Your task to perform on an android device: Do I have any events this weekend? Image 0: 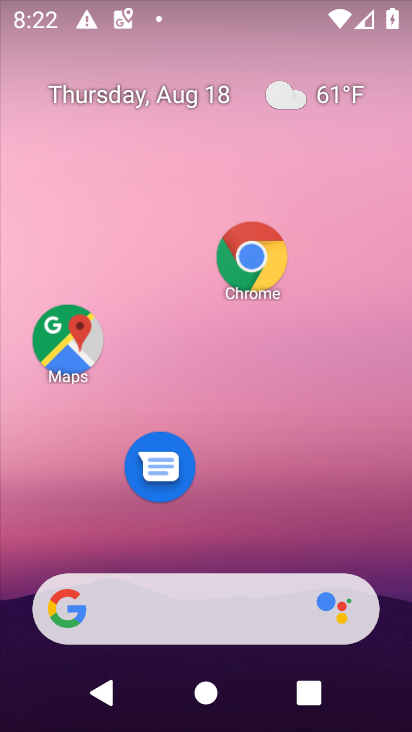
Step 0: drag from (247, 490) to (359, 407)
Your task to perform on an android device: Do I have any events this weekend? Image 1: 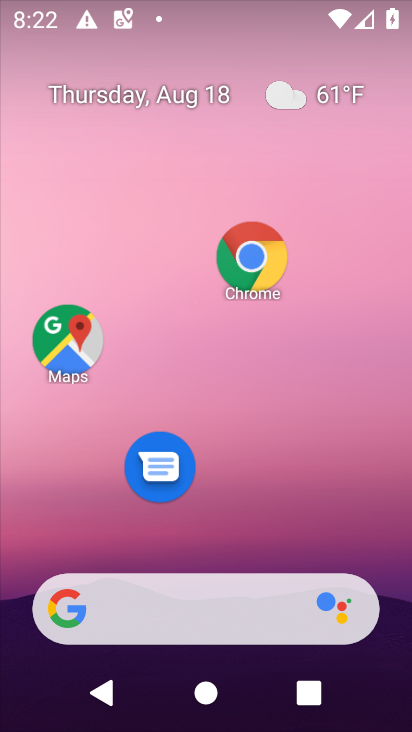
Step 1: task complete